Your task to perform on an android device: turn on data saver in the chrome app Image 0: 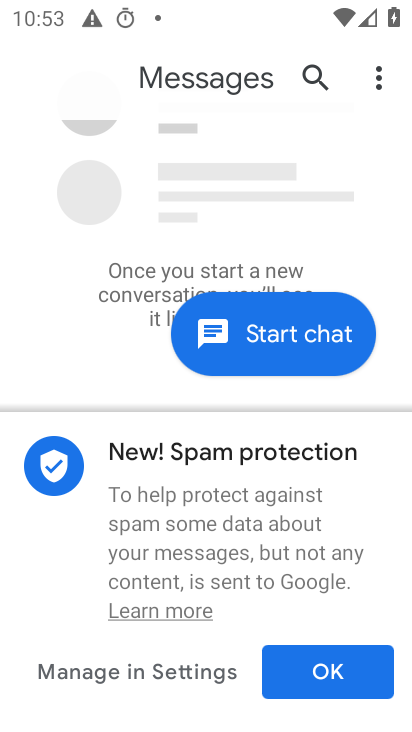
Step 0: press home button
Your task to perform on an android device: turn on data saver in the chrome app Image 1: 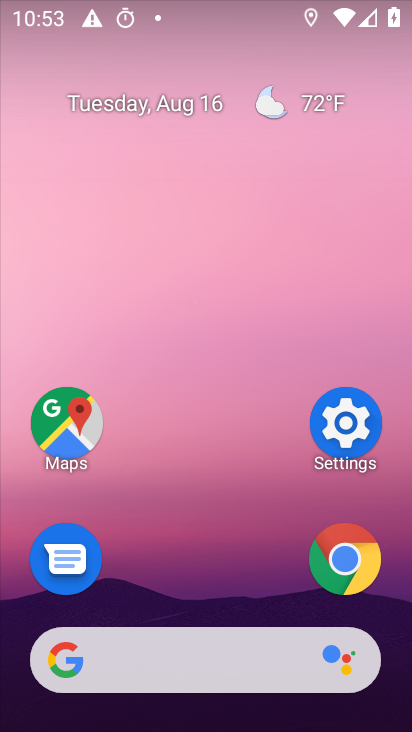
Step 1: click (358, 546)
Your task to perform on an android device: turn on data saver in the chrome app Image 2: 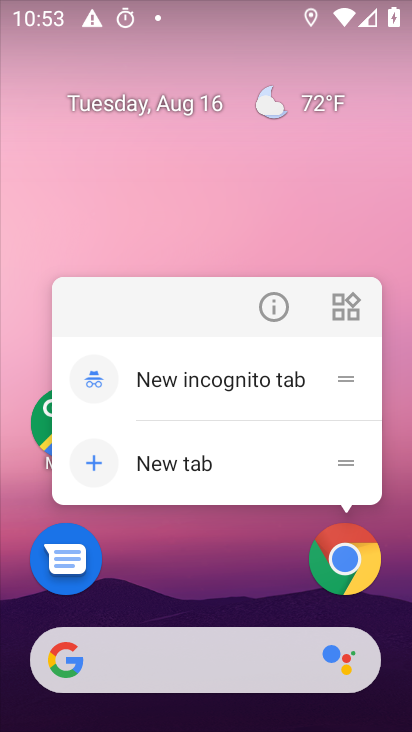
Step 2: click (347, 553)
Your task to perform on an android device: turn on data saver in the chrome app Image 3: 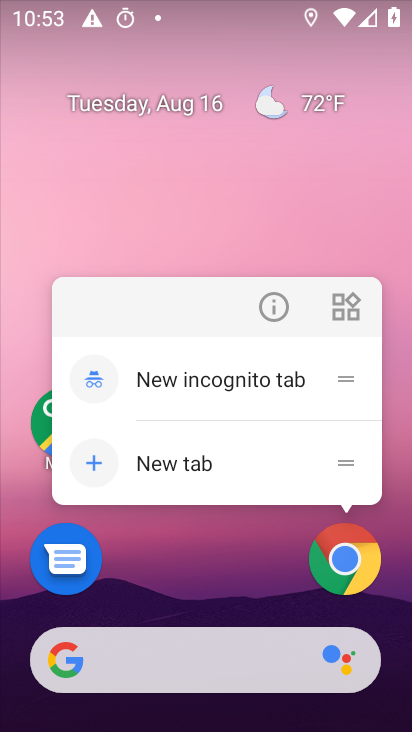
Step 3: click (347, 553)
Your task to perform on an android device: turn on data saver in the chrome app Image 4: 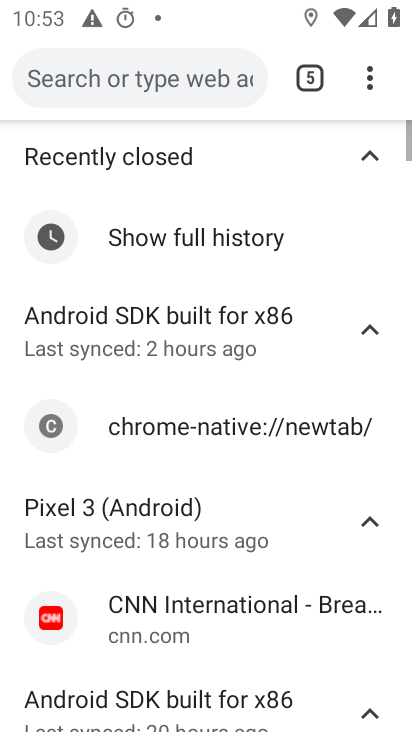
Step 4: drag from (367, 83) to (212, 617)
Your task to perform on an android device: turn on data saver in the chrome app Image 5: 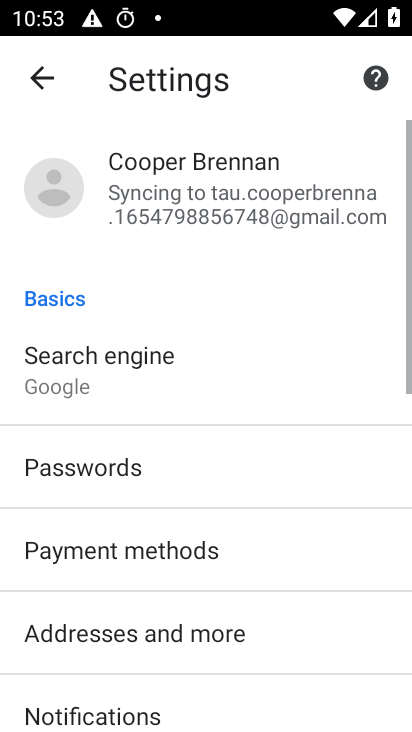
Step 5: drag from (235, 669) to (356, 78)
Your task to perform on an android device: turn on data saver in the chrome app Image 6: 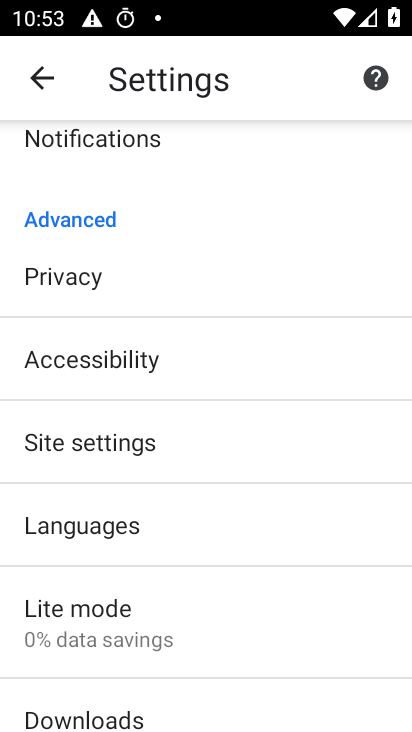
Step 6: click (118, 629)
Your task to perform on an android device: turn on data saver in the chrome app Image 7: 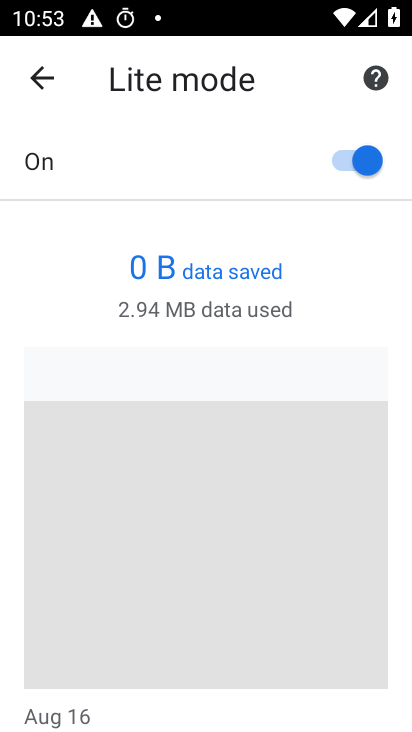
Step 7: task complete